Your task to perform on an android device: turn on showing notifications on the lock screen Image 0: 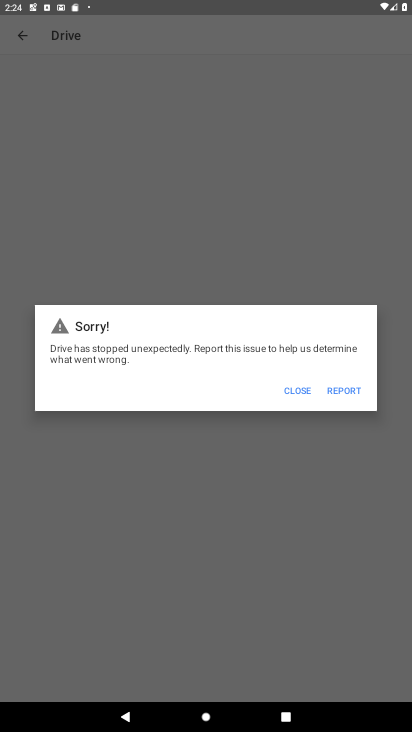
Step 0: press home button
Your task to perform on an android device: turn on showing notifications on the lock screen Image 1: 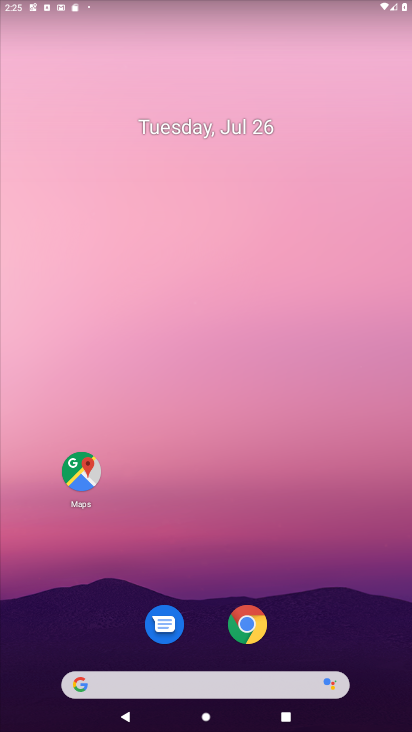
Step 1: drag from (205, 676) to (211, 77)
Your task to perform on an android device: turn on showing notifications on the lock screen Image 2: 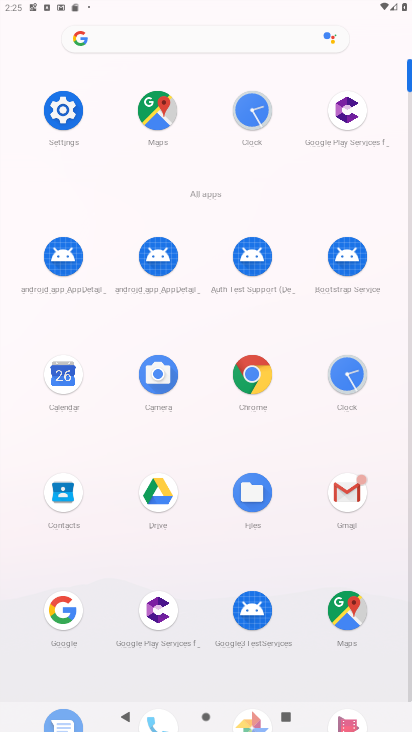
Step 2: click (39, 111)
Your task to perform on an android device: turn on showing notifications on the lock screen Image 3: 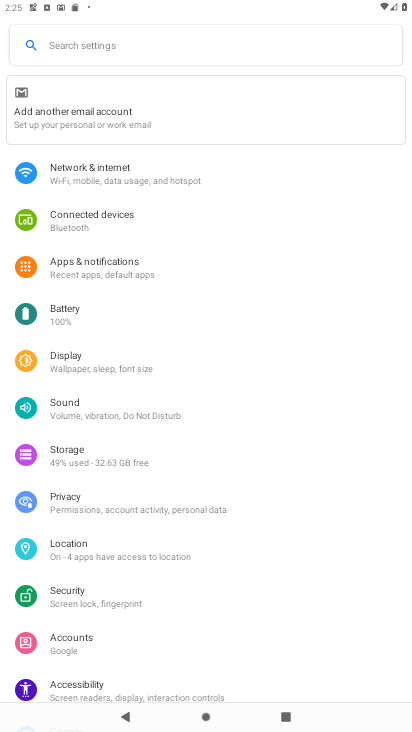
Step 3: click (80, 504)
Your task to perform on an android device: turn on showing notifications on the lock screen Image 4: 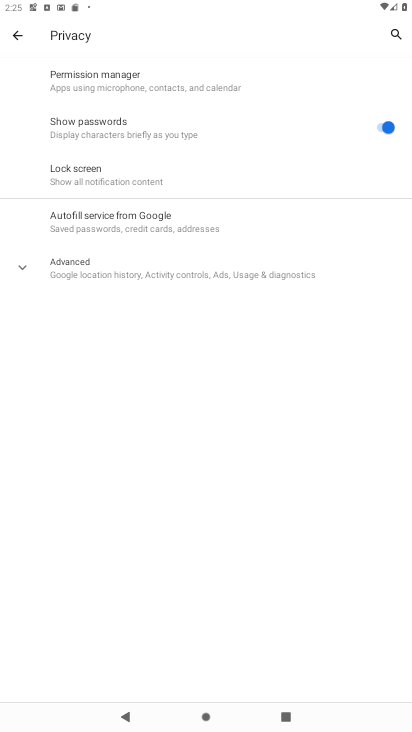
Step 4: click (87, 175)
Your task to perform on an android device: turn on showing notifications on the lock screen Image 5: 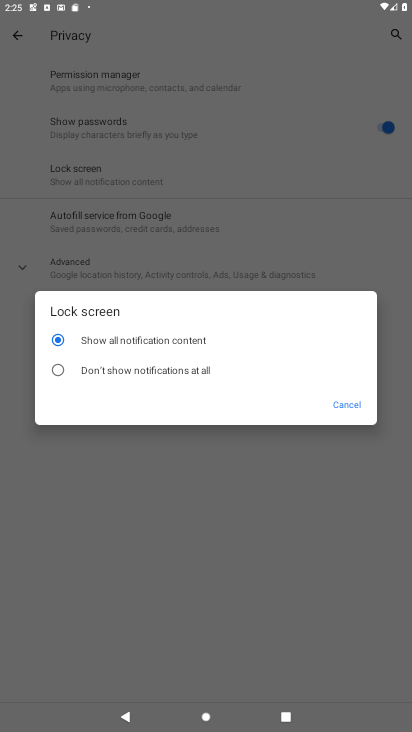
Step 5: click (351, 405)
Your task to perform on an android device: turn on showing notifications on the lock screen Image 6: 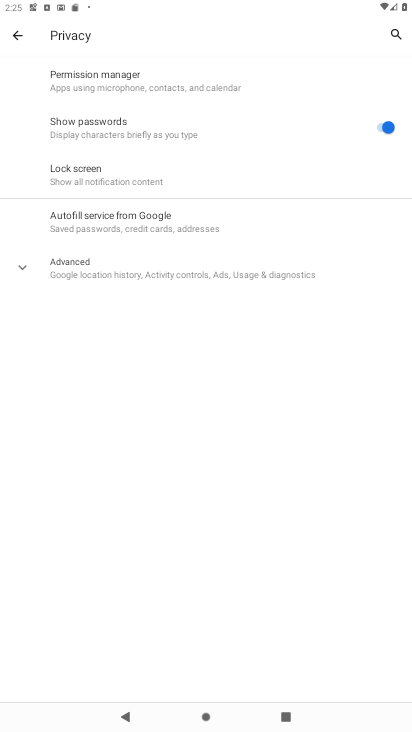
Step 6: task complete